Your task to perform on an android device: View the shopping cart on walmart.com. Search for bose soundsport free on walmart.com, select the first entry, and add it to the cart. Image 0: 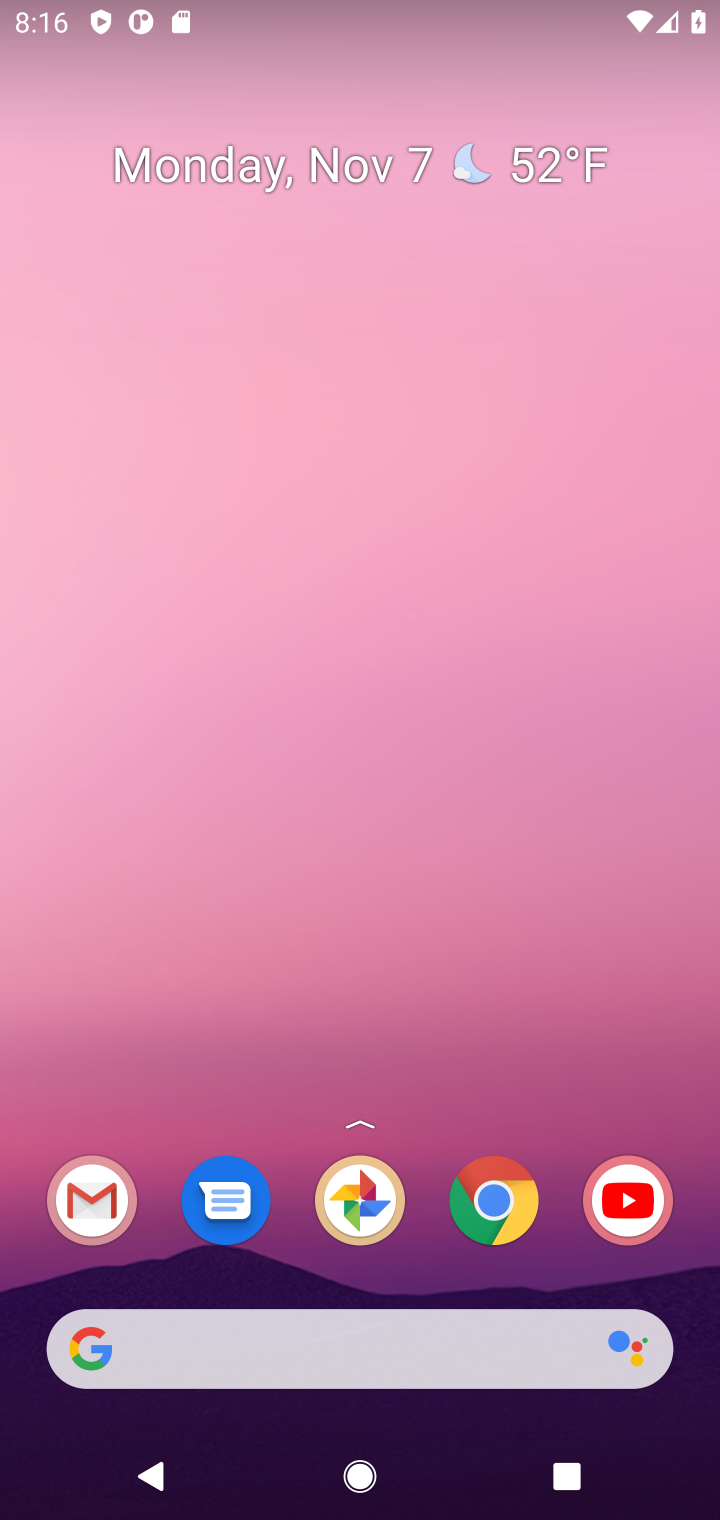
Step 0: click (498, 1213)
Your task to perform on an android device: View the shopping cart on walmart.com. Search for bose soundsport free on walmart.com, select the first entry, and add it to the cart. Image 1: 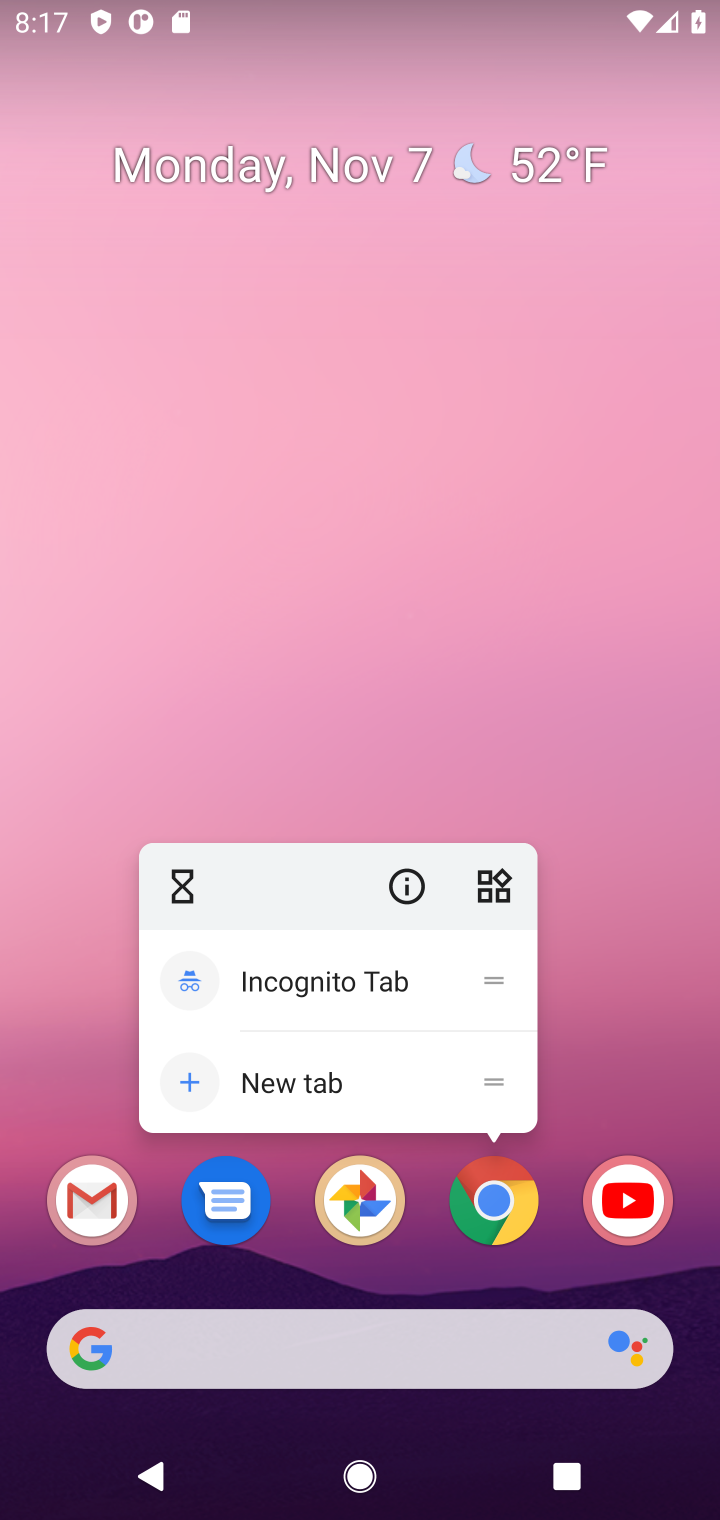
Step 1: click (509, 1201)
Your task to perform on an android device: View the shopping cart on walmart.com. Search for bose soundsport free on walmart.com, select the first entry, and add it to the cart. Image 2: 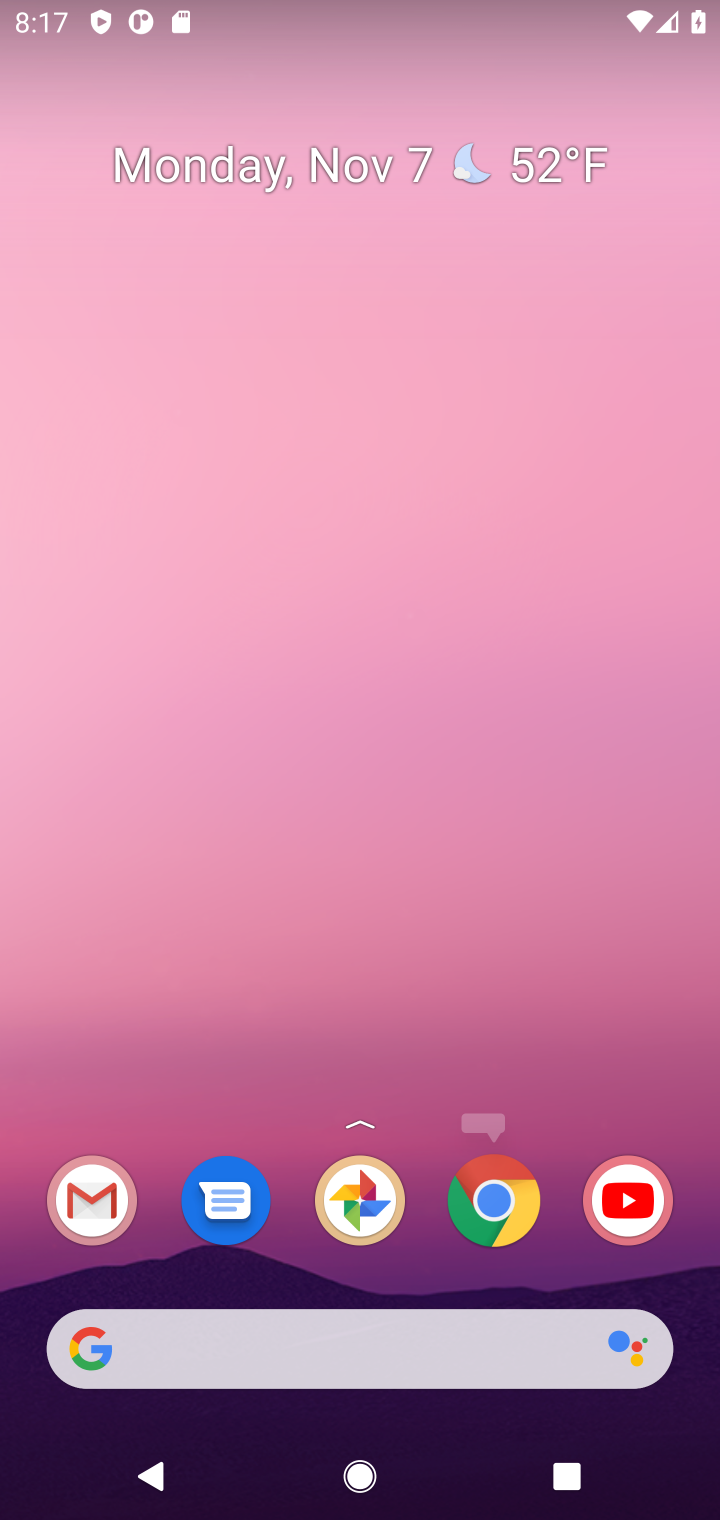
Step 2: click (509, 1201)
Your task to perform on an android device: View the shopping cart on walmart.com. Search for bose soundsport free on walmart.com, select the first entry, and add it to the cart. Image 3: 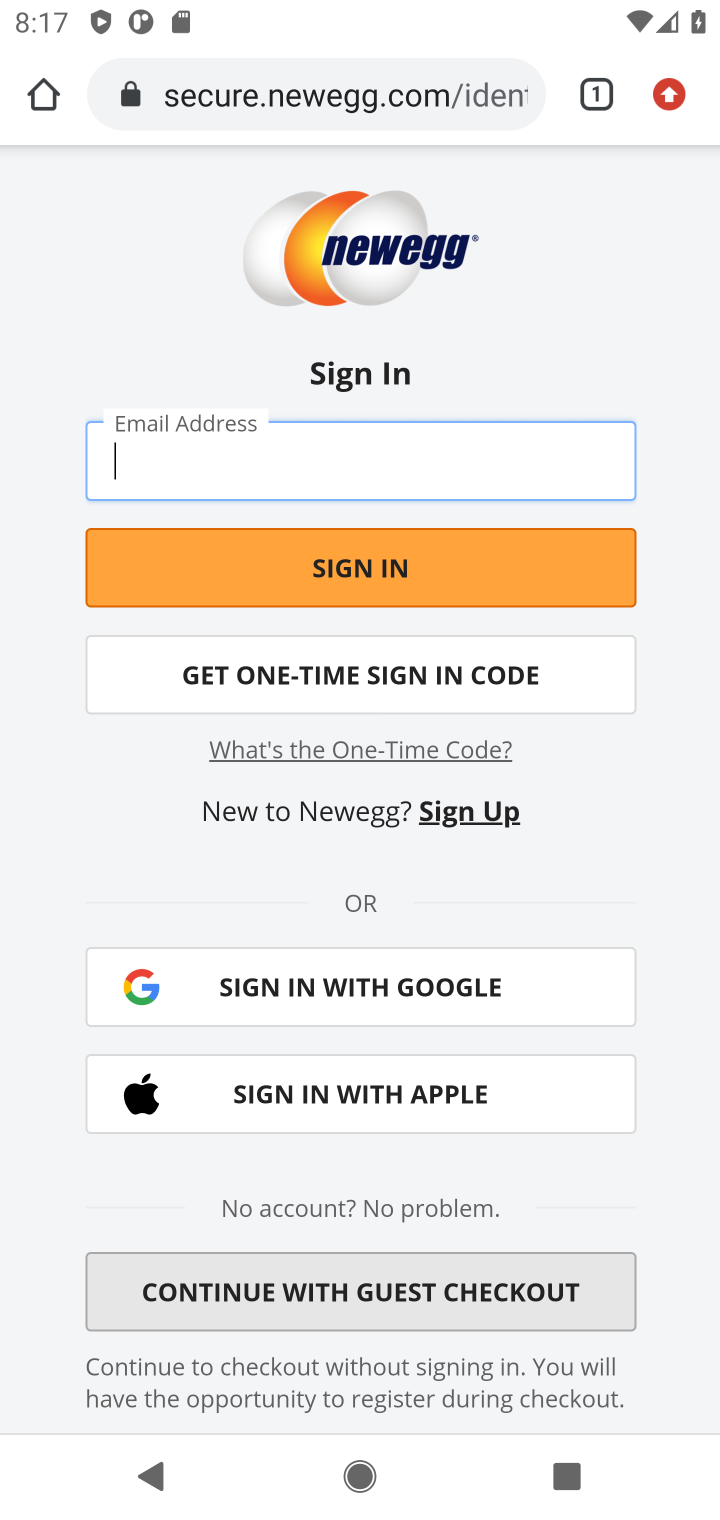
Step 3: click (229, 114)
Your task to perform on an android device: View the shopping cart on walmart.com. Search for bose soundsport free on walmart.com, select the first entry, and add it to the cart. Image 4: 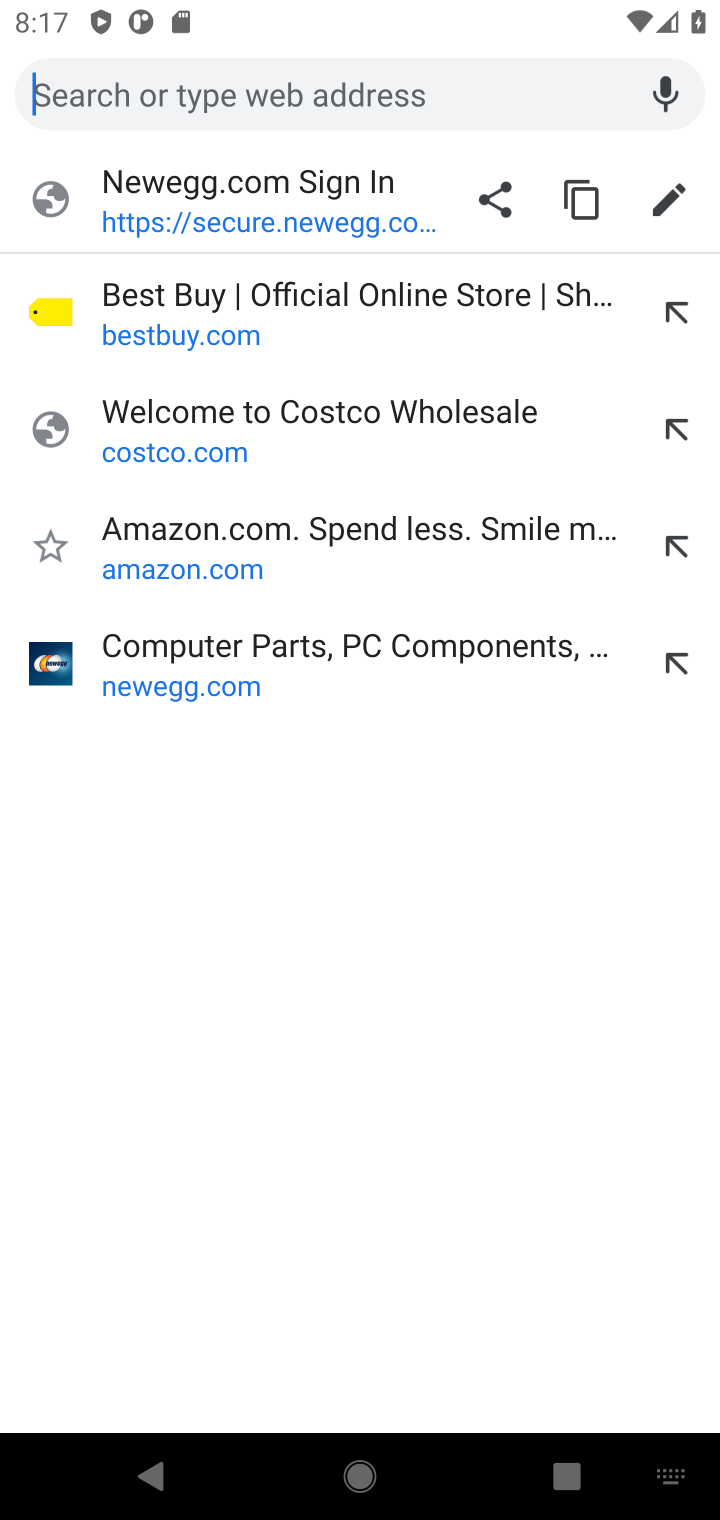
Step 4: press enter
Your task to perform on an android device: View the shopping cart on walmart.com. Search for bose soundsport free on walmart.com, select the first entry, and add it to the cart. Image 5: 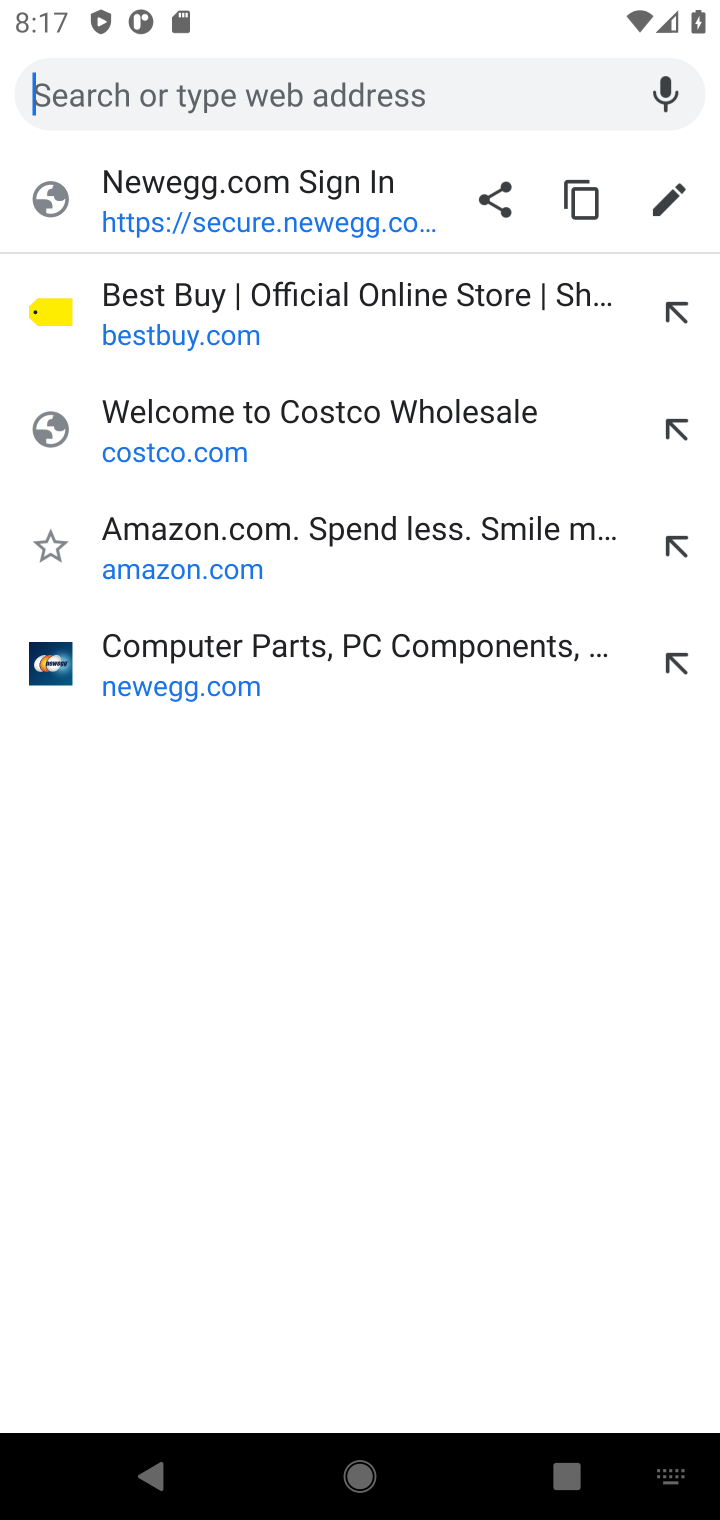
Step 5: type "walmart.com"
Your task to perform on an android device: View the shopping cart on walmart.com. Search for bose soundsport free on walmart.com, select the first entry, and add it to the cart. Image 6: 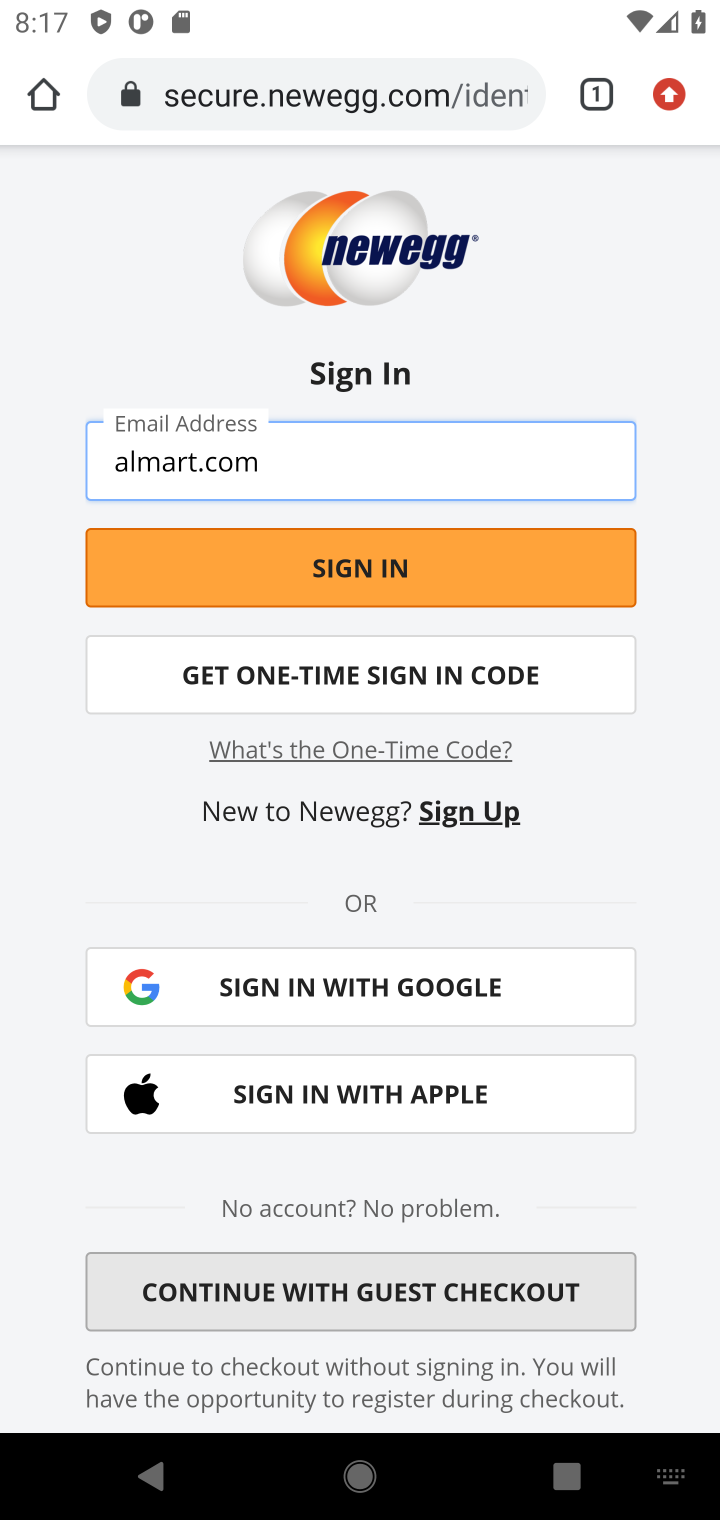
Step 6: click (287, 110)
Your task to perform on an android device: View the shopping cart on walmart.com. Search for bose soundsport free on walmart.com, select the first entry, and add it to the cart. Image 7: 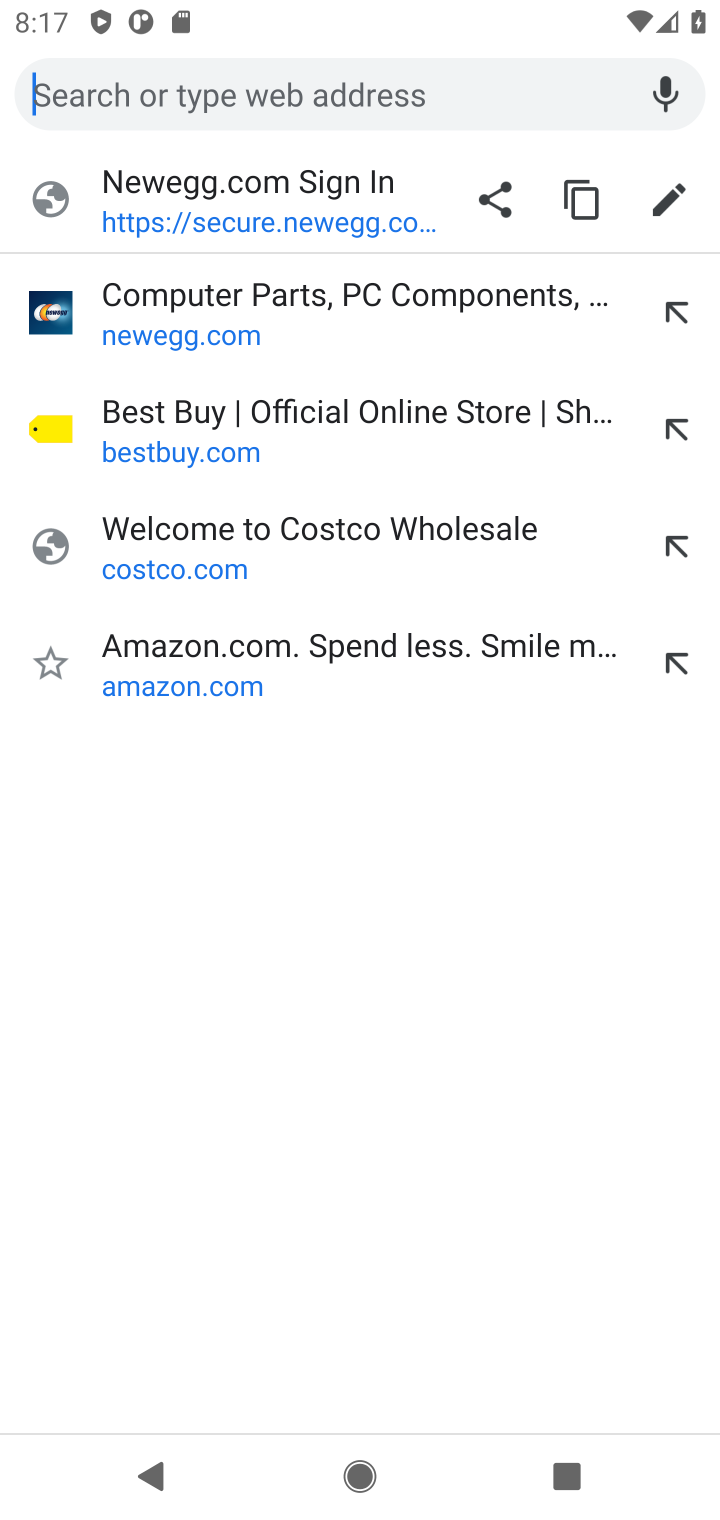
Step 7: type "walmart.com"
Your task to perform on an android device: View the shopping cart on walmart.com. Search for bose soundsport free on walmart.com, select the first entry, and add it to the cart. Image 8: 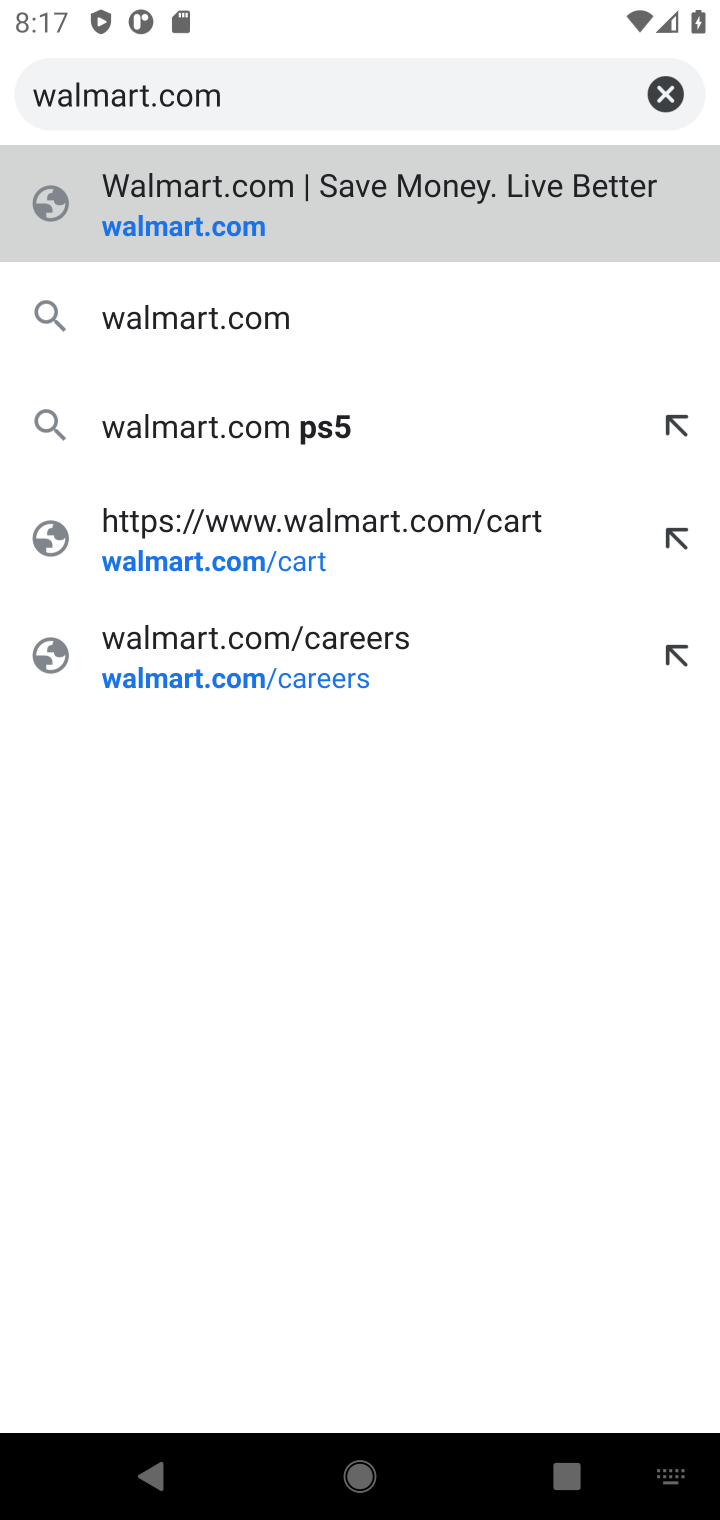
Step 8: press enter
Your task to perform on an android device: View the shopping cart on walmart.com. Search for bose soundsport free on walmart.com, select the first entry, and add it to the cart. Image 9: 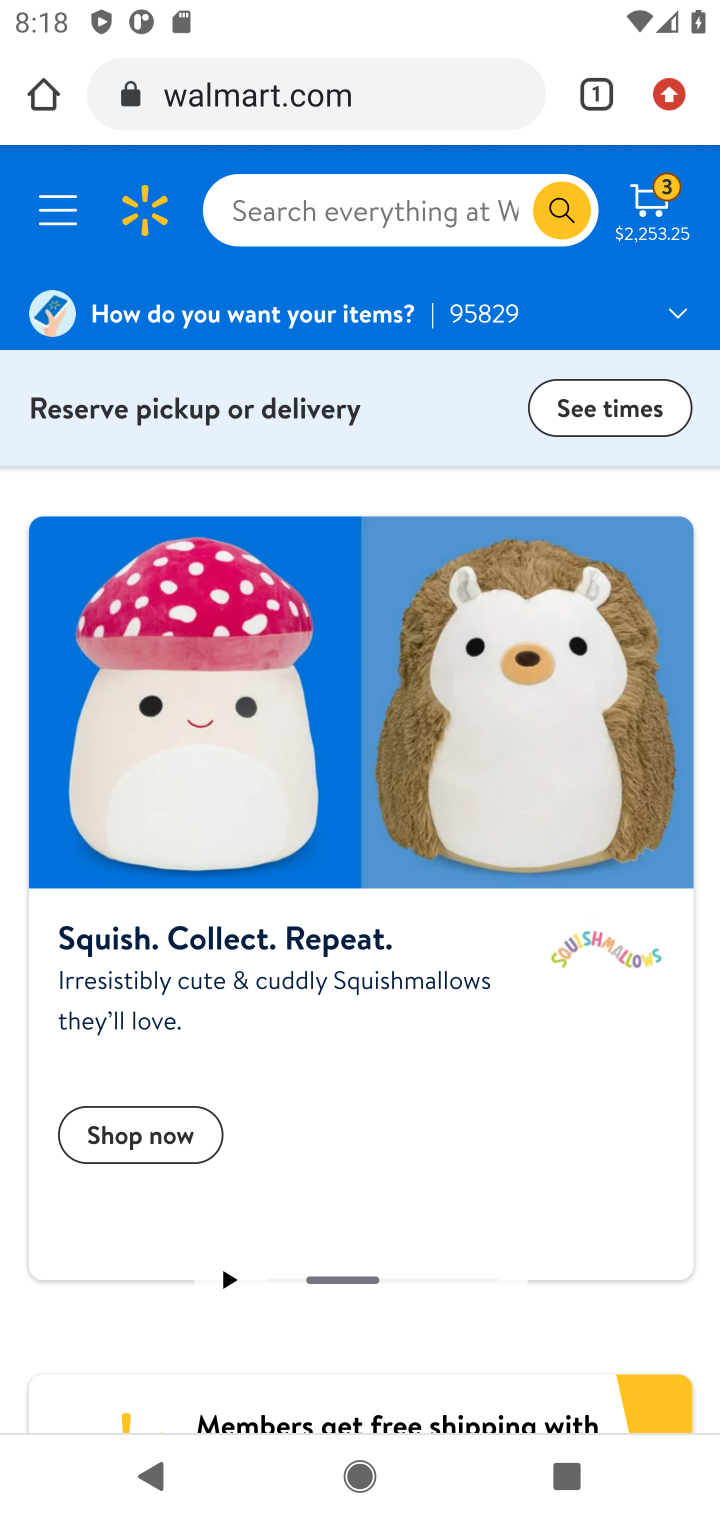
Step 9: click (356, 195)
Your task to perform on an android device: View the shopping cart on walmart.com. Search for bose soundsport free on walmart.com, select the first entry, and add it to the cart. Image 10: 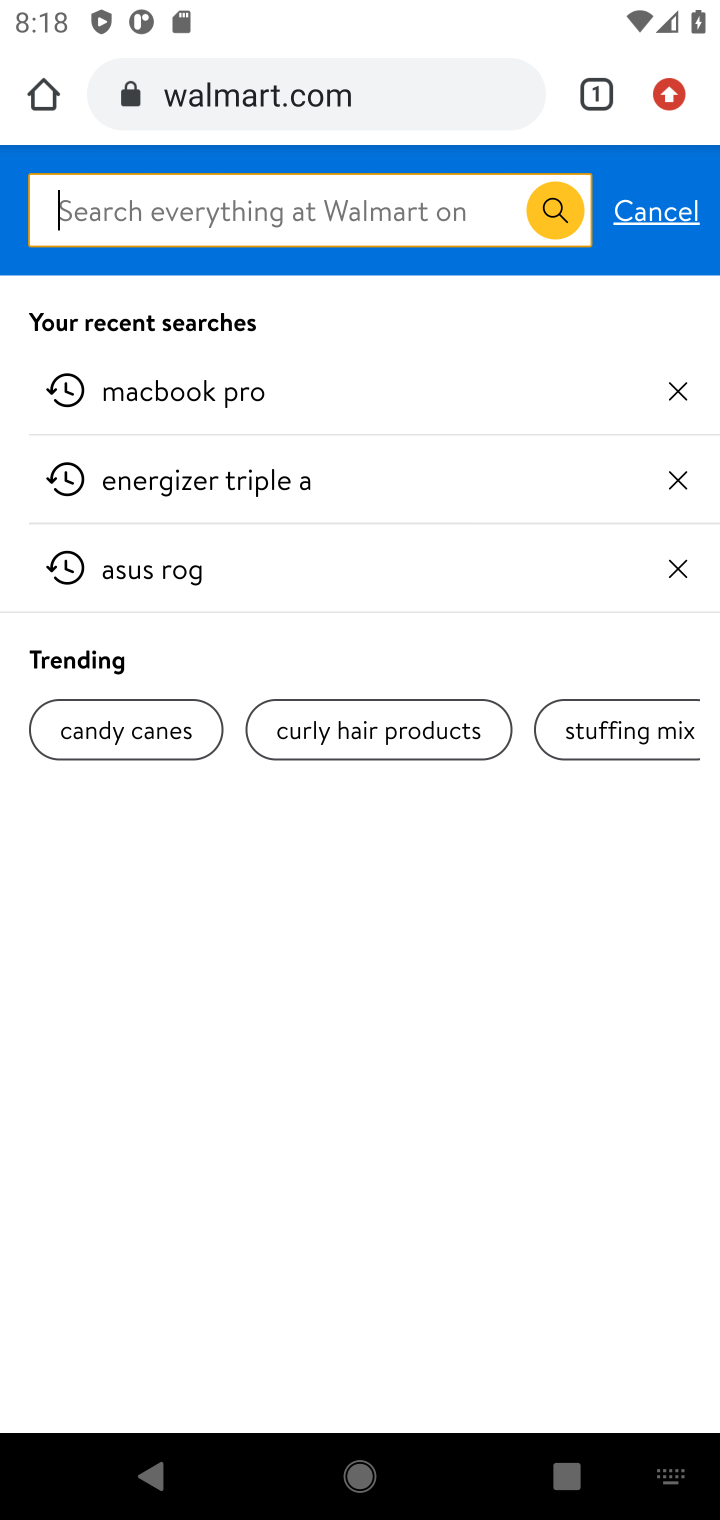
Step 10: type "bose soundsport free"
Your task to perform on an android device: View the shopping cart on walmart.com. Search for bose soundsport free on walmart.com, select the first entry, and add it to the cart. Image 11: 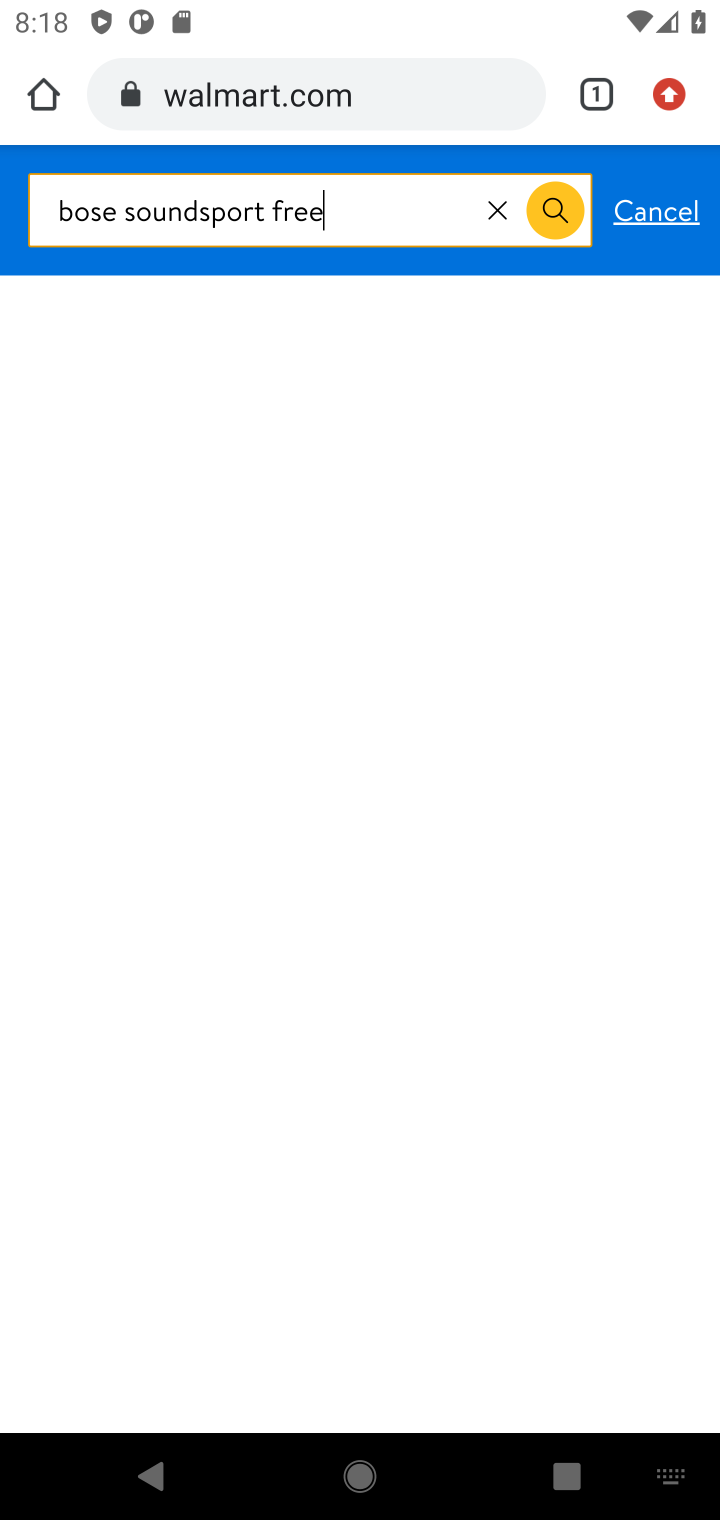
Step 11: press enter
Your task to perform on an android device: View the shopping cart on walmart.com. Search for bose soundsport free on walmart.com, select the first entry, and add it to the cart. Image 12: 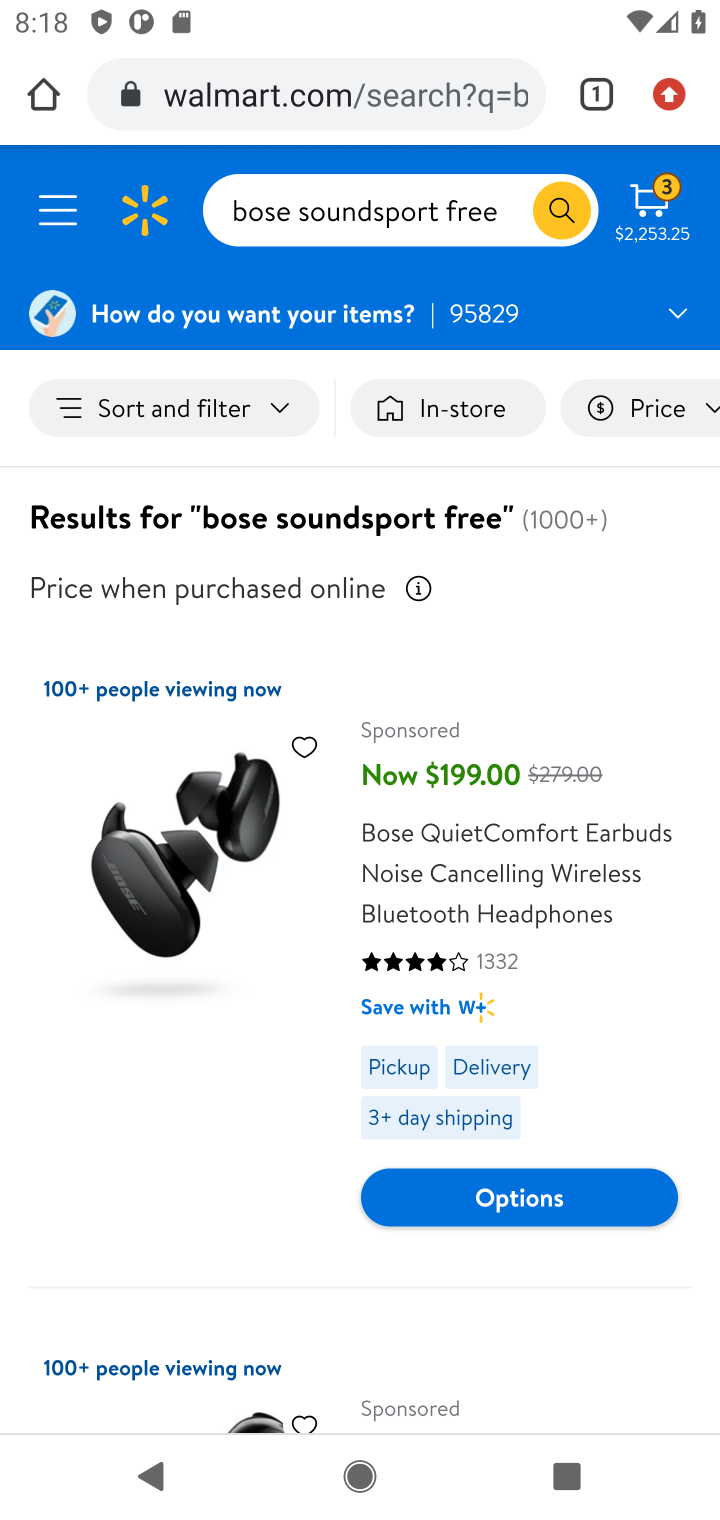
Step 12: task complete